Your task to perform on an android device: find photos in the google photos app Image 0: 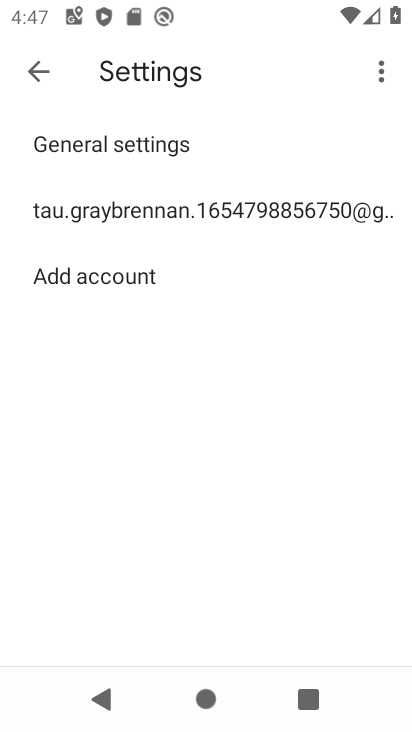
Step 0: press home button
Your task to perform on an android device: find photos in the google photos app Image 1: 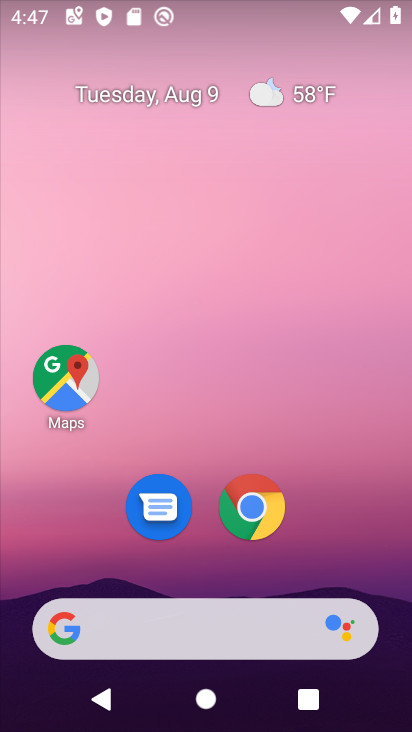
Step 1: drag from (372, 555) to (366, 58)
Your task to perform on an android device: find photos in the google photos app Image 2: 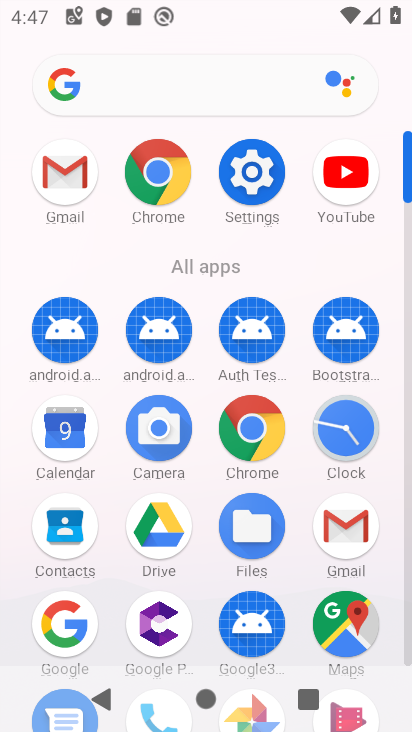
Step 2: drag from (203, 538) to (204, 229)
Your task to perform on an android device: find photos in the google photos app Image 3: 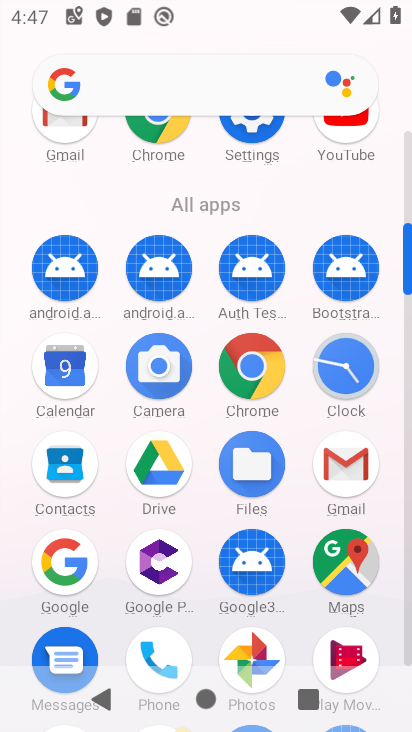
Step 3: click (260, 637)
Your task to perform on an android device: find photos in the google photos app Image 4: 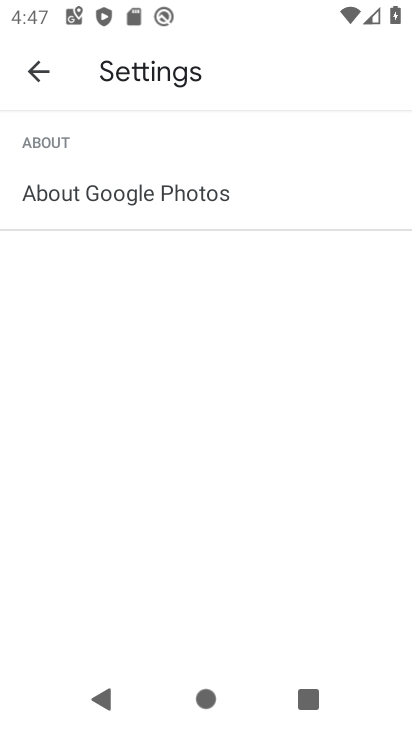
Step 4: click (27, 71)
Your task to perform on an android device: find photos in the google photos app Image 5: 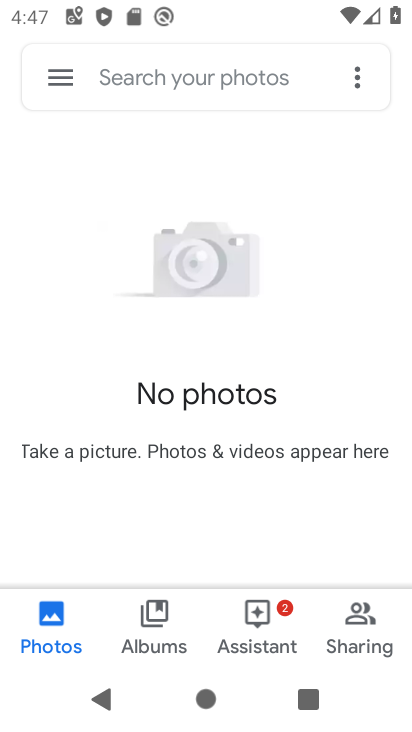
Step 5: task complete